Your task to perform on an android device: turn off data saver in the chrome app Image 0: 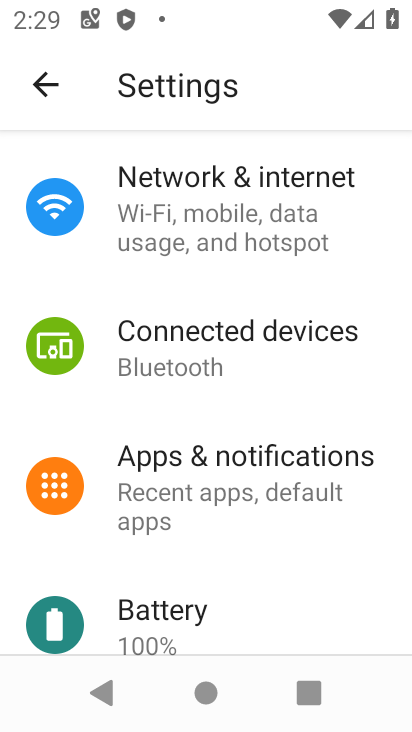
Step 0: press home button
Your task to perform on an android device: turn off data saver in the chrome app Image 1: 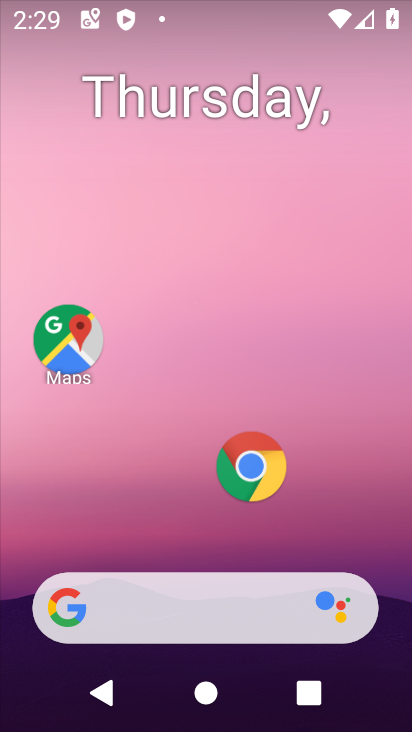
Step 1: click (254, 484)
Your task to perform on an android device: turn off data saver in the chrome app Image 2: 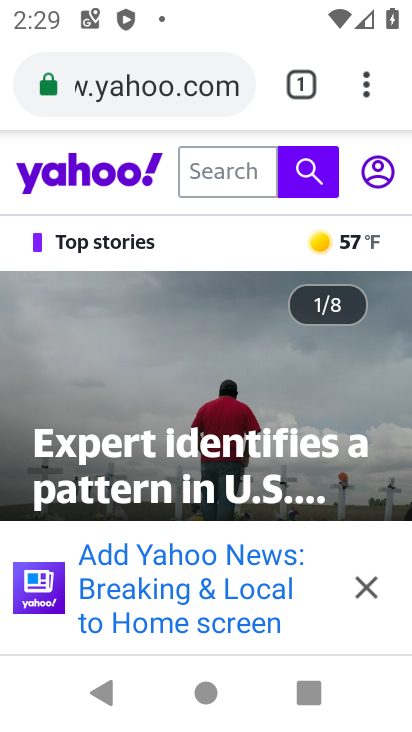
Step 2: drag from (363, 89) to (138, 501)
Your task to perform on an android device: turn off data saver in the chrome app Image 3: 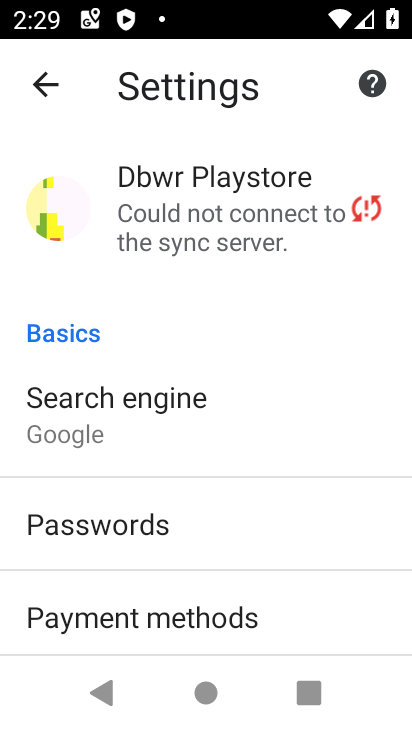
Step 3: drag from (224, 569) to (228, 230)
Your task to perform on an android device: turn off data saver in the chrome app Image 4: 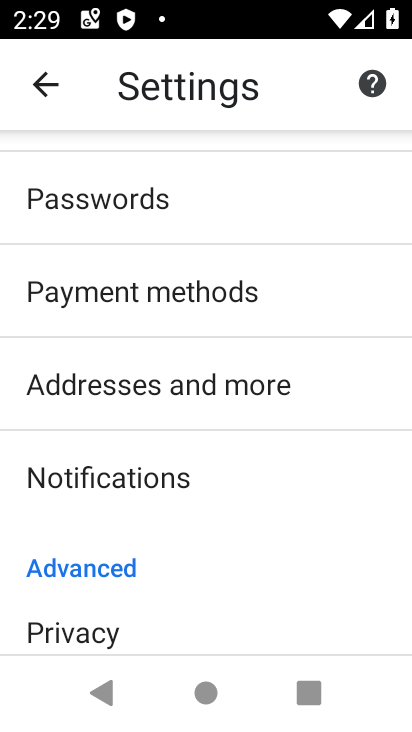
Step 4: drag from (251, 584) to (256, 270)
Your task to perform on an android device: turn off data saver in the chrome app Image 5: 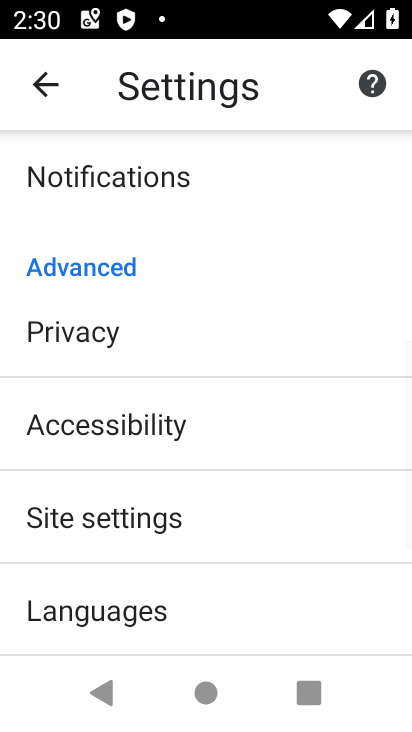
Step 5: drag from (240, 601) to (253, 256)
Your task to perform on an android device: turn off data saver in the chrome app Image 6: 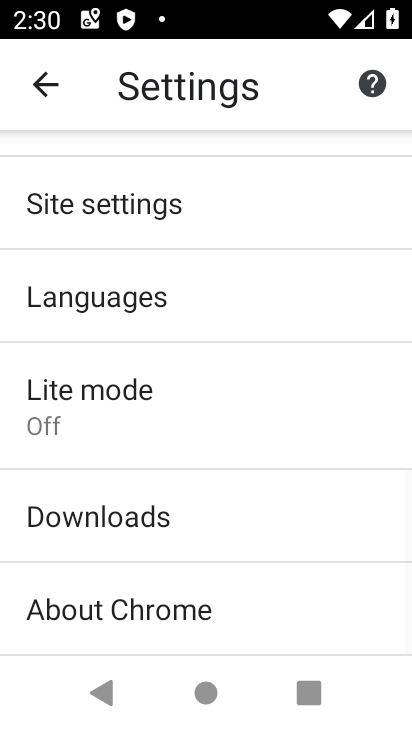
Step 6: click (143, 400)
Your task to perform on an android device: turn off data saver in the chrome app Image 7: 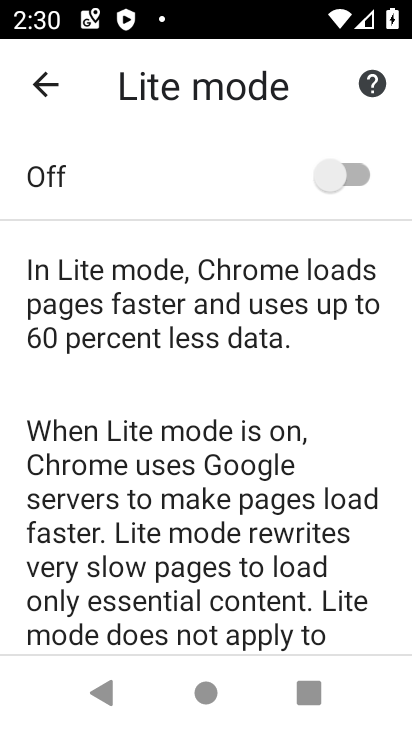
Step 7: task complete